Your task to perform on an android device: open sync settings in chrome Image 0: 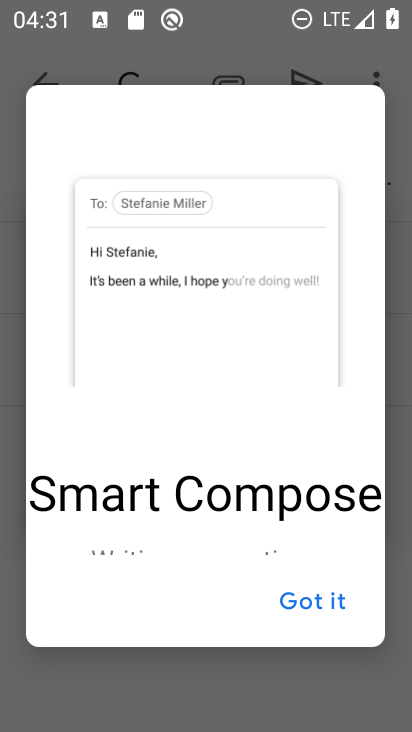
Step 0: press home button
Your task to perform on an android device: open sync settings in chrome Image 1: 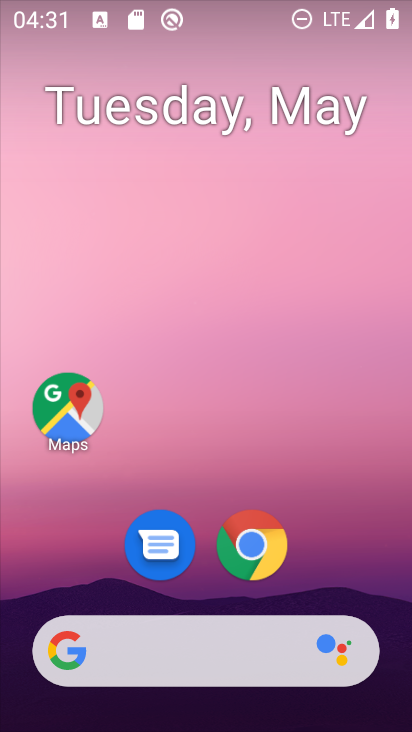
Step 1: click (254, 545)
Your task to perform on an android device: open sync settings in chrome Image 2: 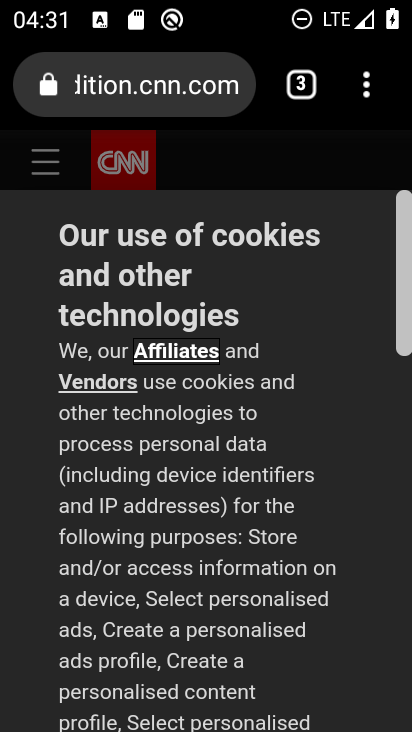
Step 2: click (362, 88)
Your task to perform on an android device: open sync settings in chrome Image 3: 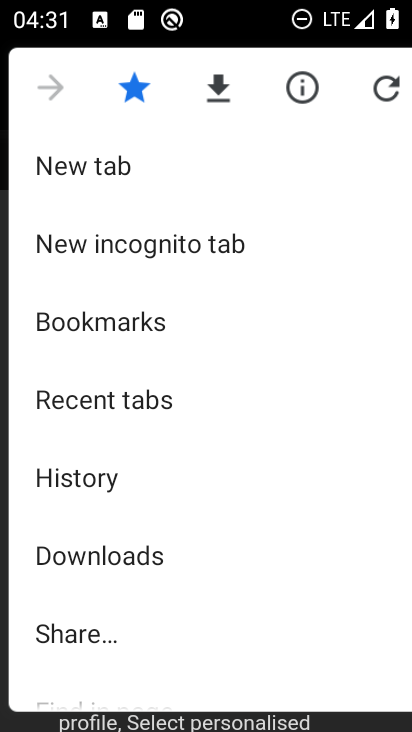
Step 3: drag from (191, 635) to (258, 99)
Your task to perform on an android device: open sync settings in chrome Image 4: 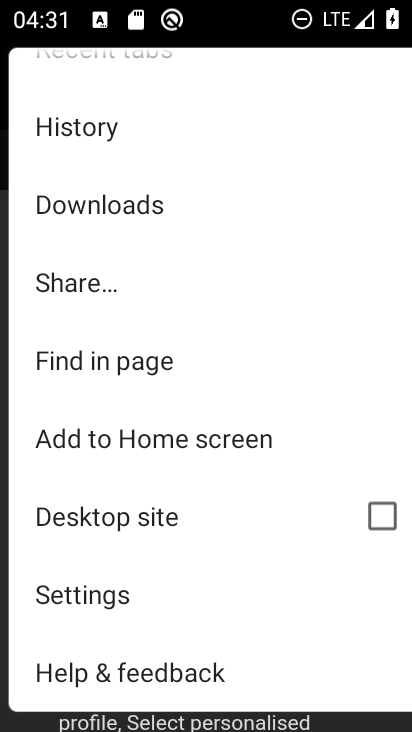
Step 4: click (94, 594)
Your task to perform on an android device: open sync settings in chrome Image 5: 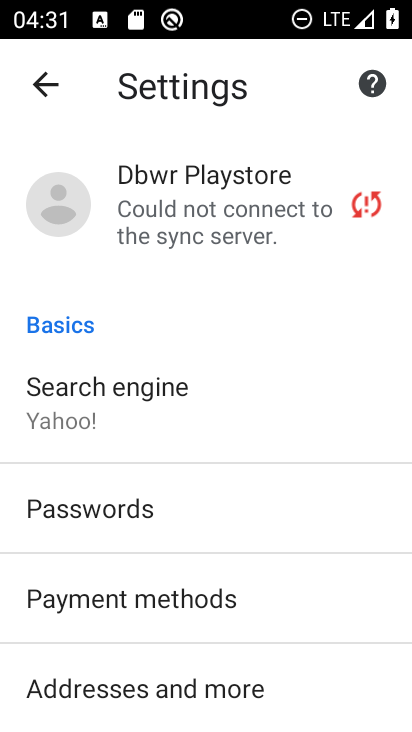
Step 5: click (167, 206)
Your task to perform on an android device: open sync settings in chrome Image 6: 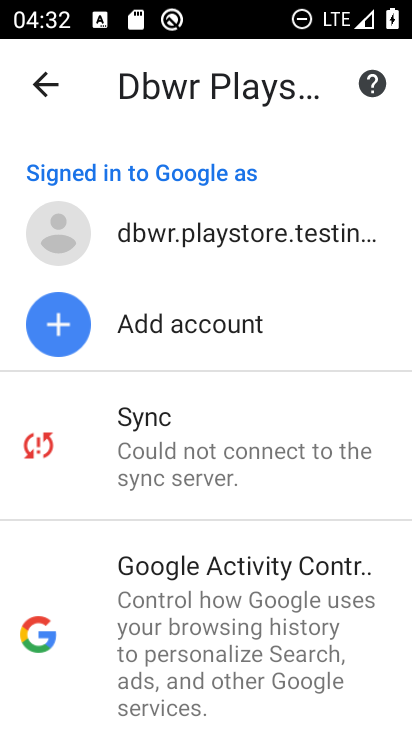
Step 6: click (151, 453)
Your task to perform on an android device: open sync settings in chrome Image 7: 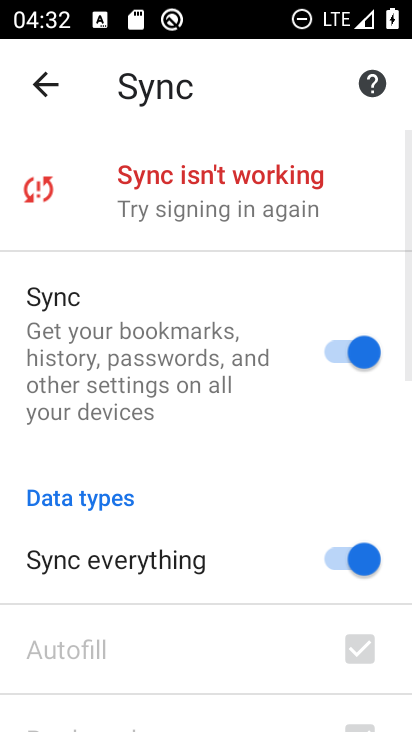
Step 7: task complete